Your task to perform on an android device: Open the Play Movies app and select the watchlist tab. Image 0: 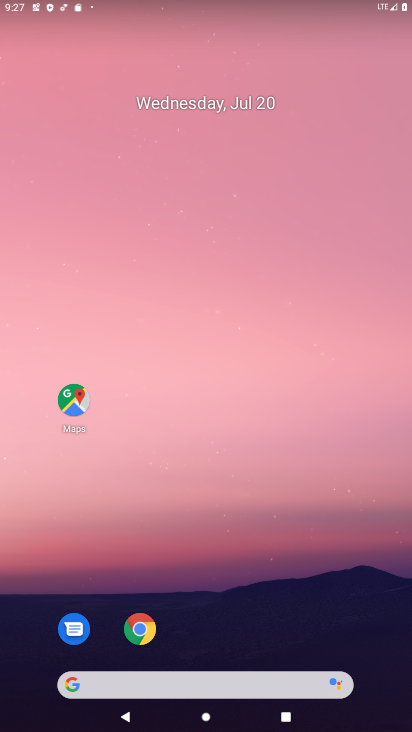
Step 0: drag from (183, 638) to (177, 18)
Your task to perform on an android device: Open the Play Movies app and select the watchlist tab. Image 1: 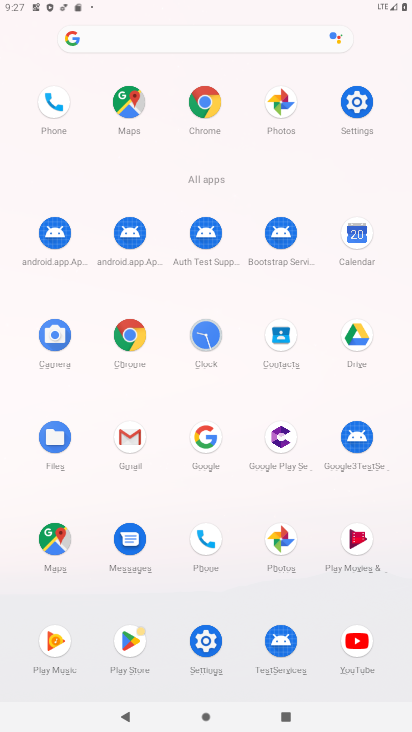
Step 1: click (134, 634)
Your task to perform on an android device: Open the Play Movies app and select the watchlist tab. Image 2: 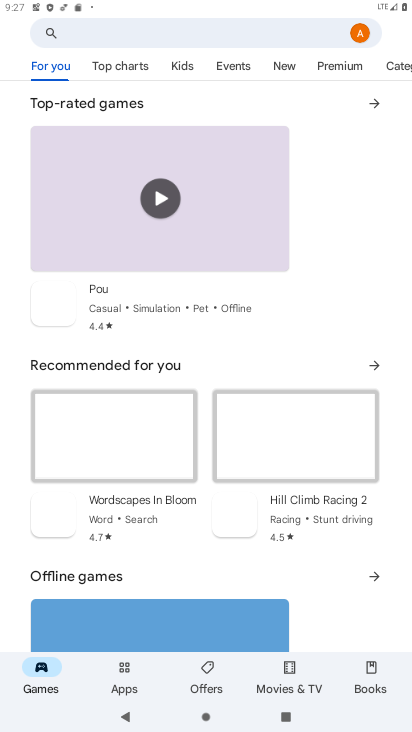
Step 2: press home button
Your task to perform on an android device: Open the Play Movies app and select the watchlist tab. Image 3: 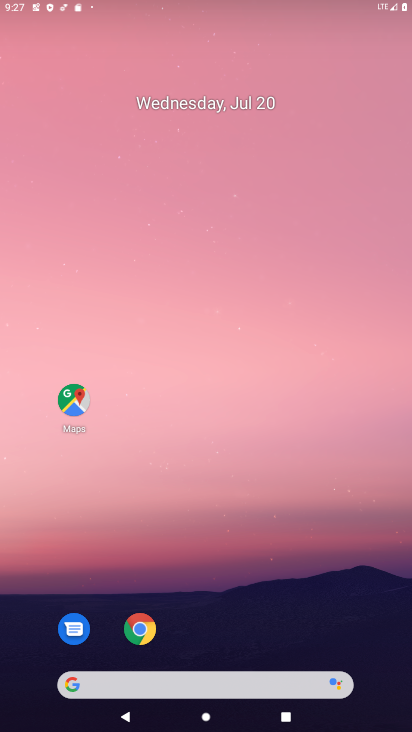
Step 3: drag from (259, 609) to (218, 9)
Your task to perform on an android device: Open the Play Movies app and select the watchlist tab. Image 4: 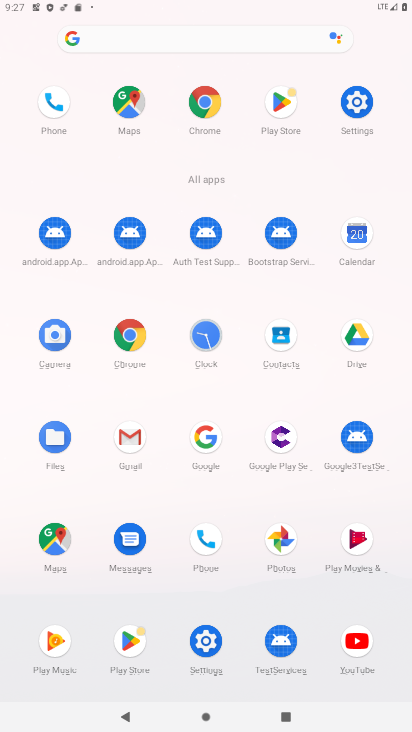
Step 4: click (342, 531)
Your task to perform on an android device: Open the Play Movies app and select the watchlist tab. Image 5: 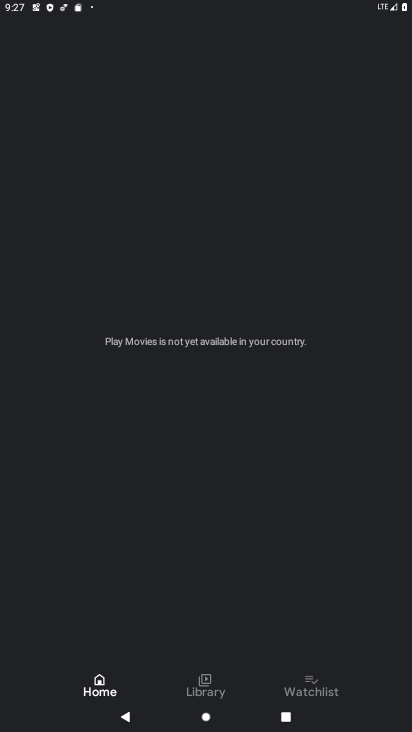
Step 5: click (322, 681)
Your task to perform on an android device: Open the Play Movies app and select the watchlist tab. Image 6: 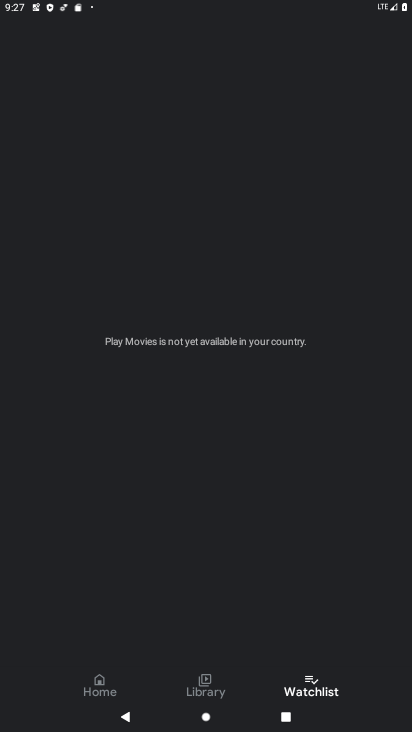
Step 6: task complete